Your task to perform on an android device: Open the map Image 0: 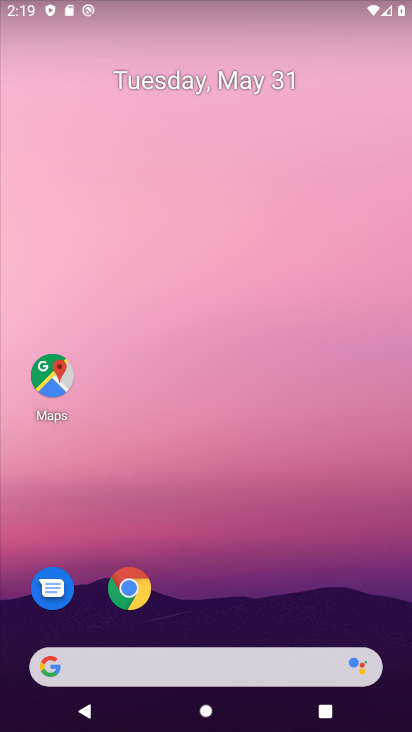
Step 0: click (43, 395)
Your task to perform on an android device: Open the map Image 1: 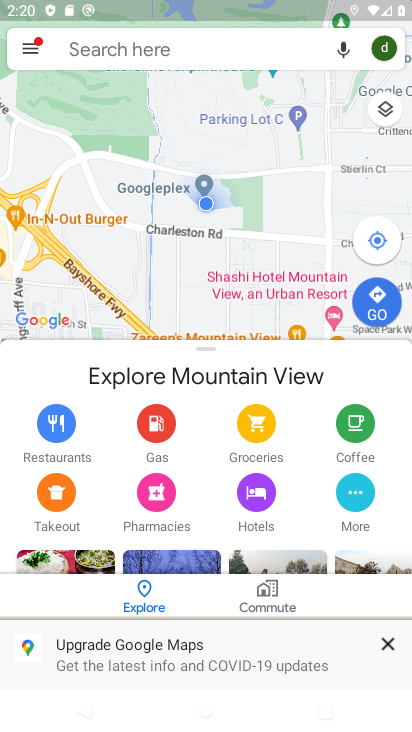
Step 1: task complete